Your task to perform on an android device: Go to network settings Image 0: 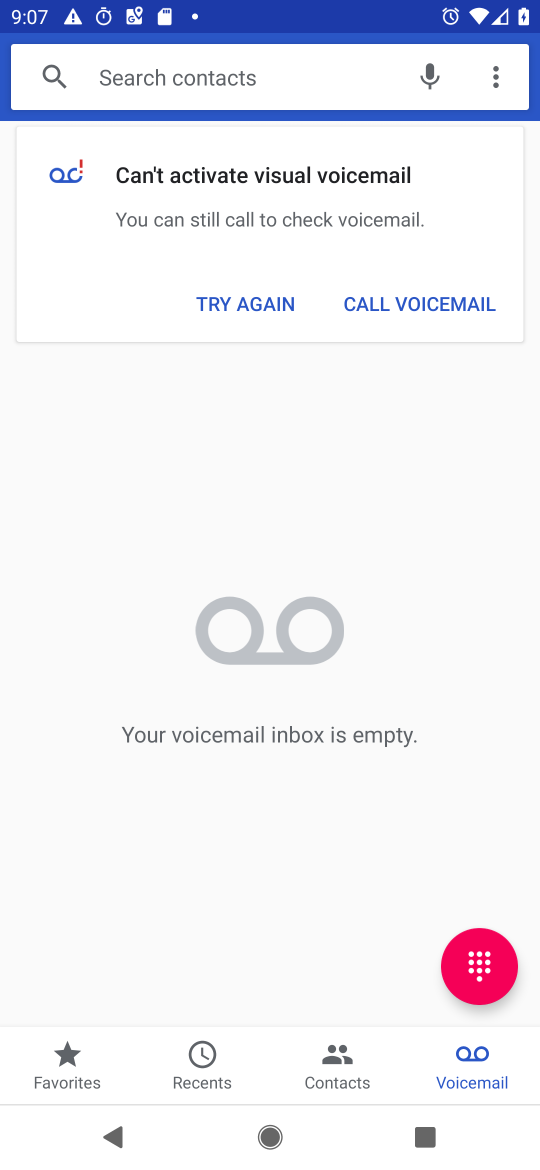
Step 0: drag from (284, 1034) to (271, 559)
Your task to perform on an android device: Go to network settings Image 1: 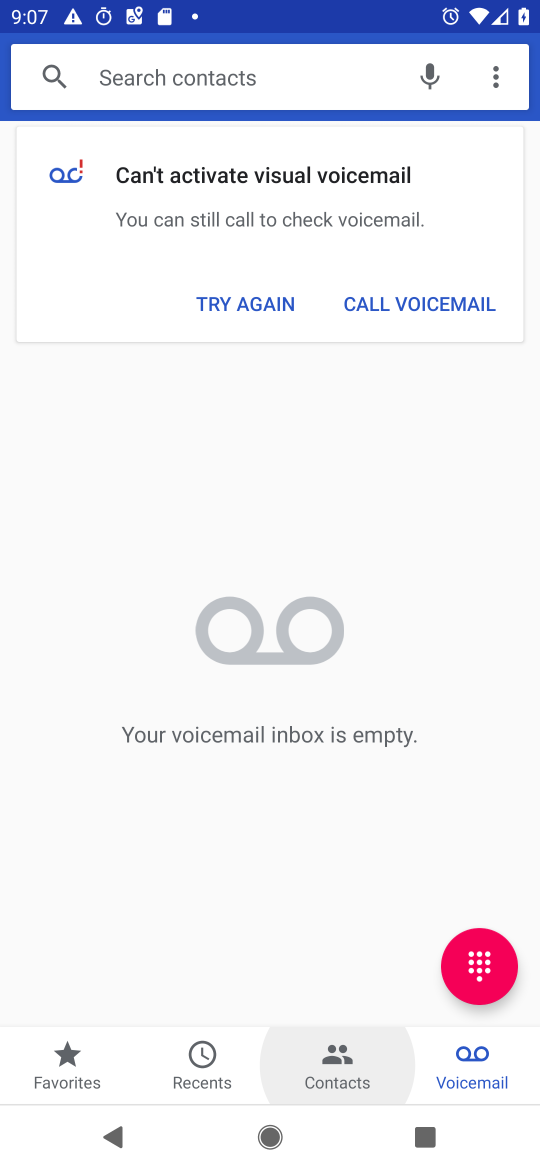
Step 1: press home button
Your task to perform on an android device: Go to network settings Image 2: 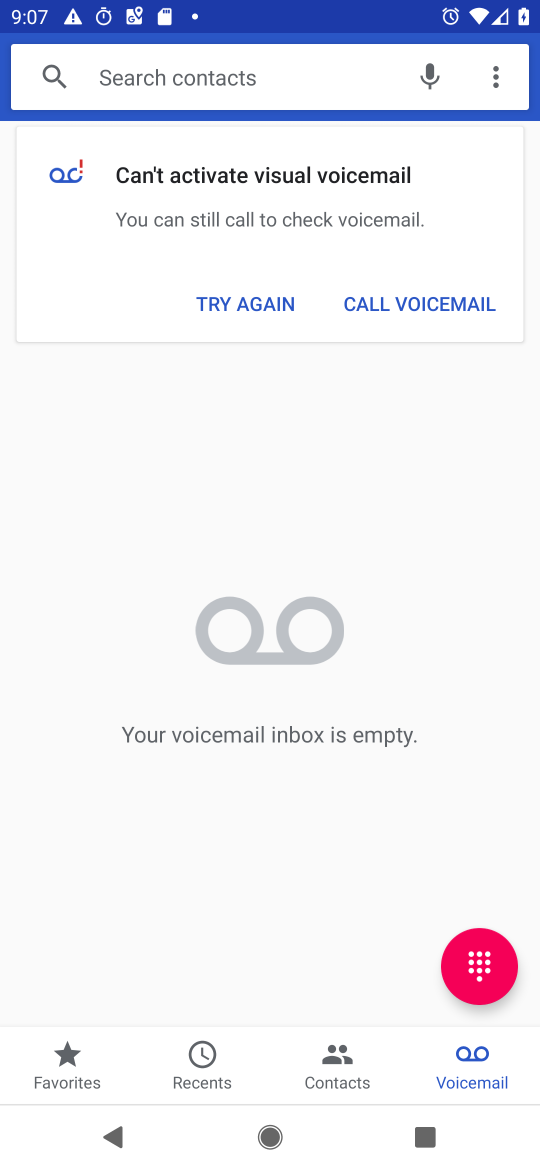
Step 2: drag from (238, 906) to (273, 85)
Your task to perform on an android device: Go to network settings Image 3: 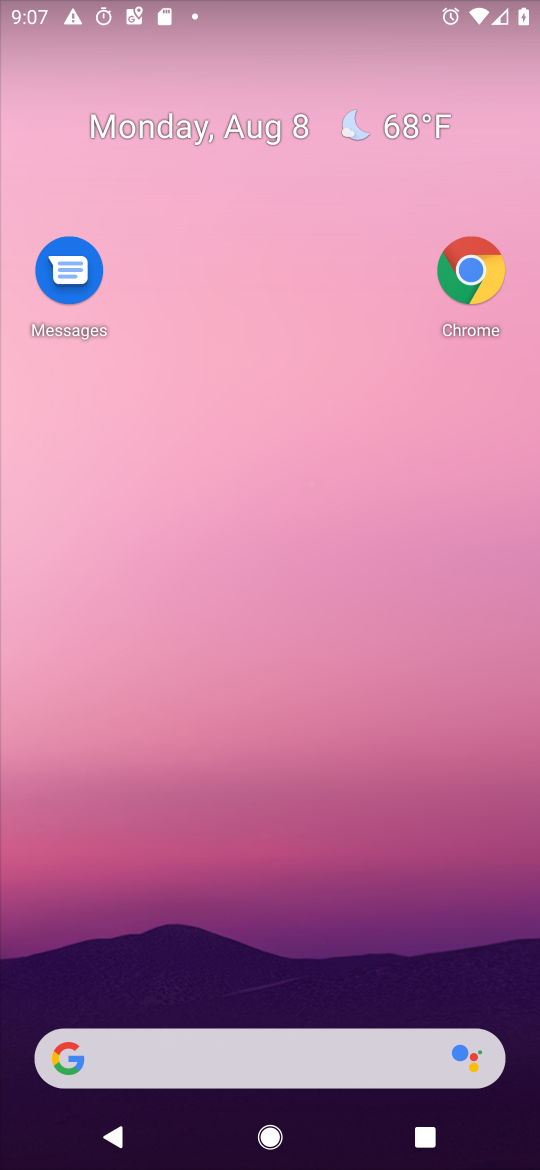
Step 3: drag from (325, 989) to (322, 89)
Your task to perform on an android device: Go to network settings Image 4: 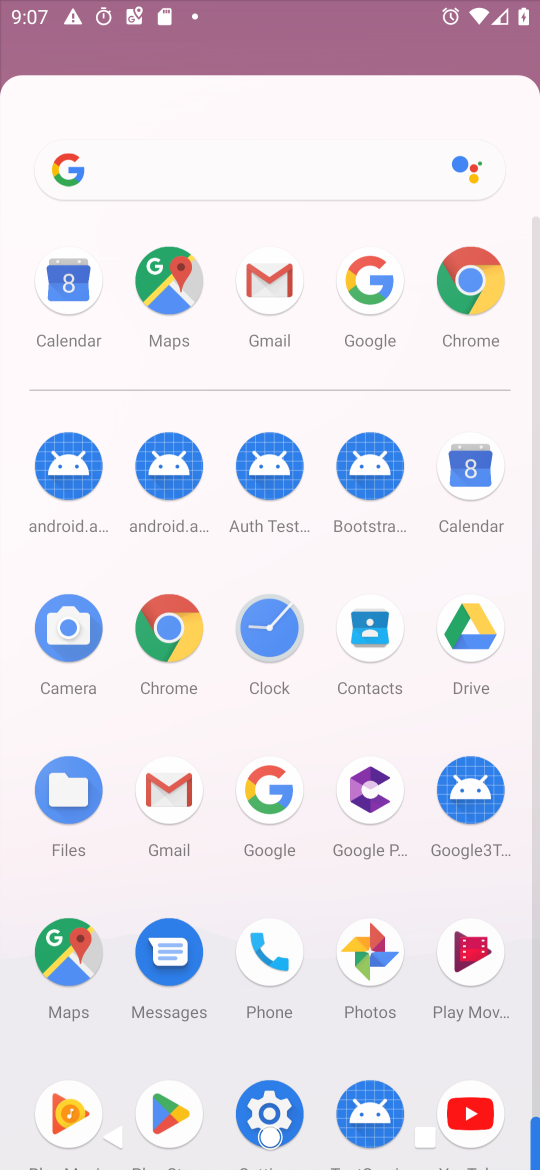
Step 4: drag from (229, 961) to (262, 169)
Your task to perform on an android device: Go to network settings Image 5: 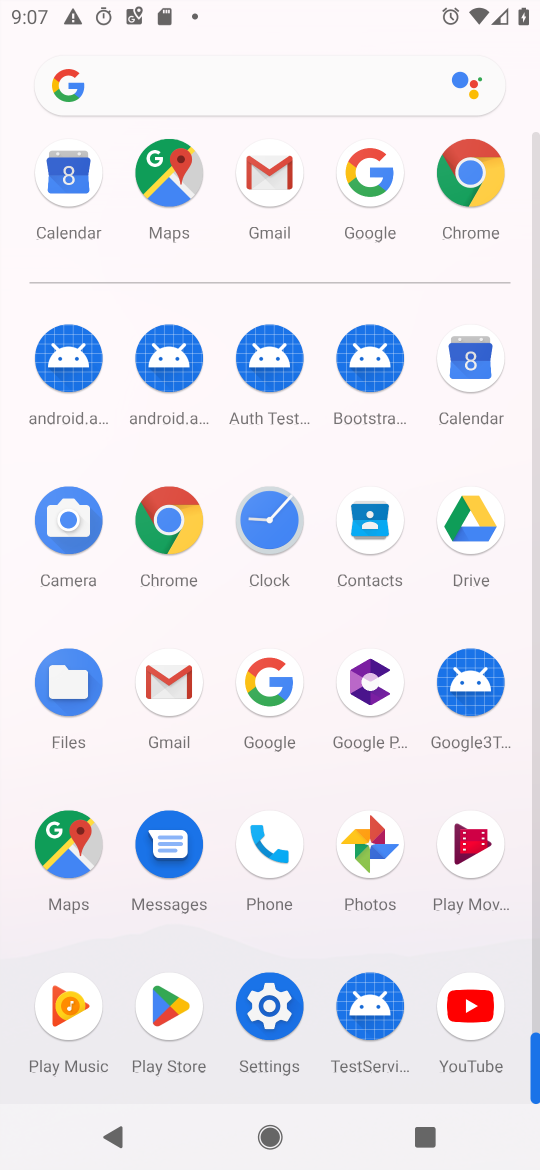
Step 5: click (275, 968)
Your task to perform on an android device: Go to network settings Image 6: 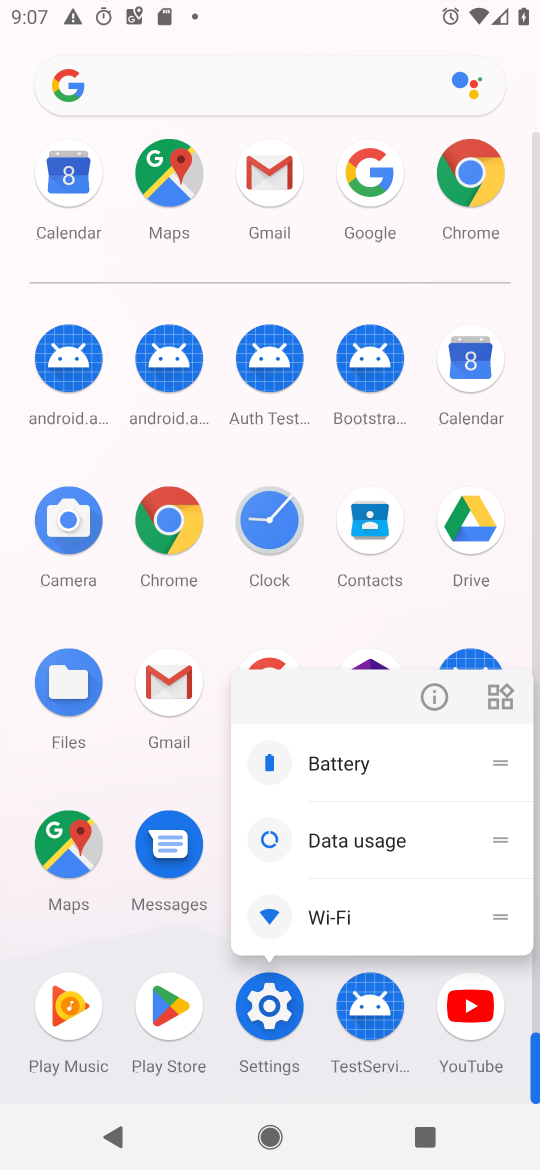
Step 6: click (429, 693)
Your task to perform on an android device: Go to network settings Image 7: 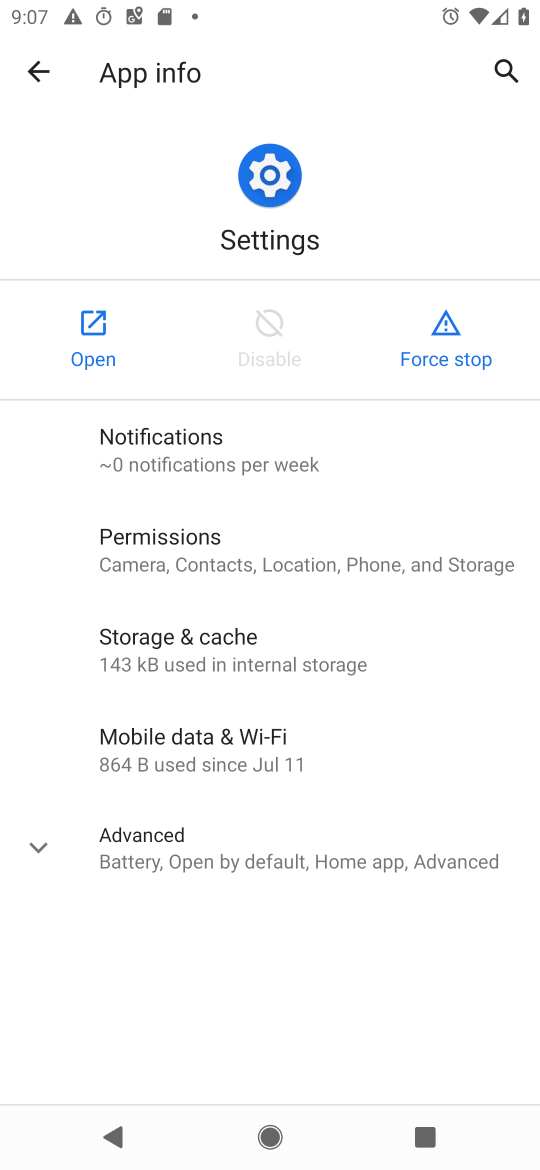
Step 7: click (99, 358)
Your task to perform on an android device: Go to network settings Image 8: 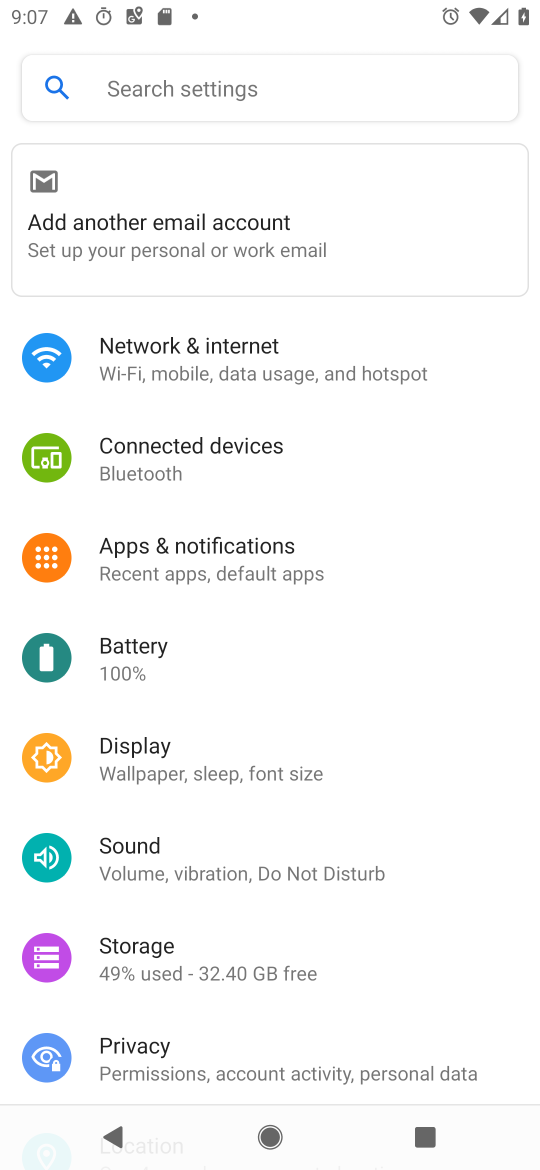
Step 8: click (220, 332)
Your task to perform on an android device: Go to network settings Image 9: 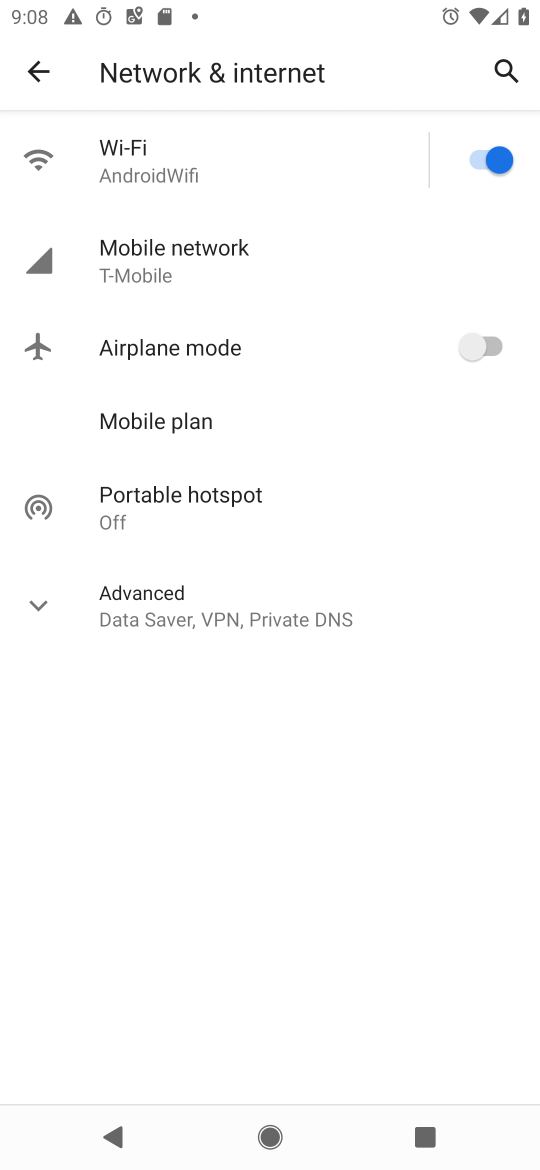
Step 9: click (214, 241)
Your task to perform on an android device: Go to network settings Image 10: 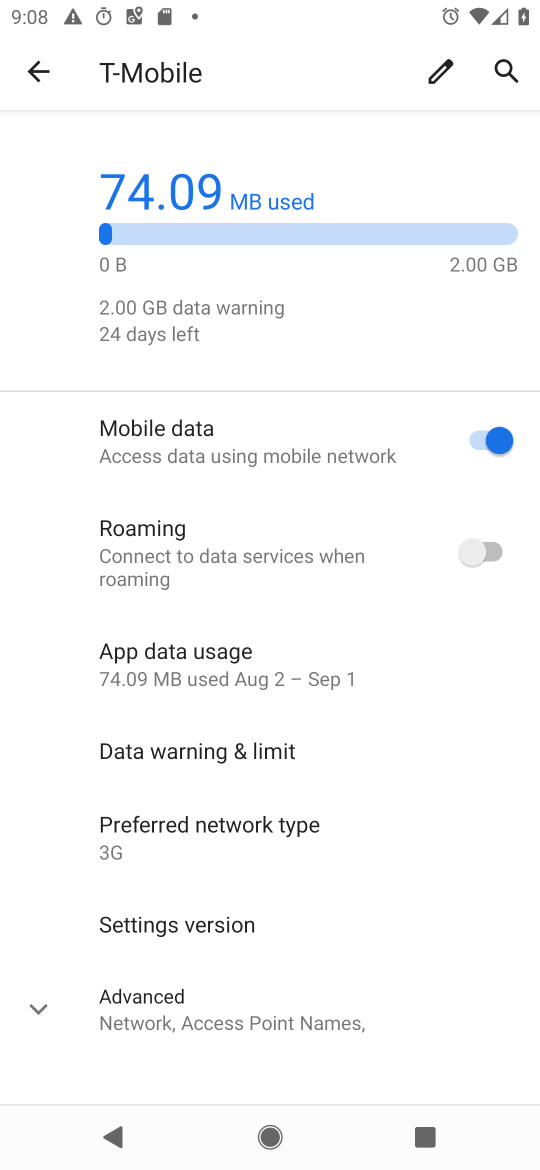
Step 10: task complete